Your task to perform on an android device: Is it going to rain tomorrow? Image 0: 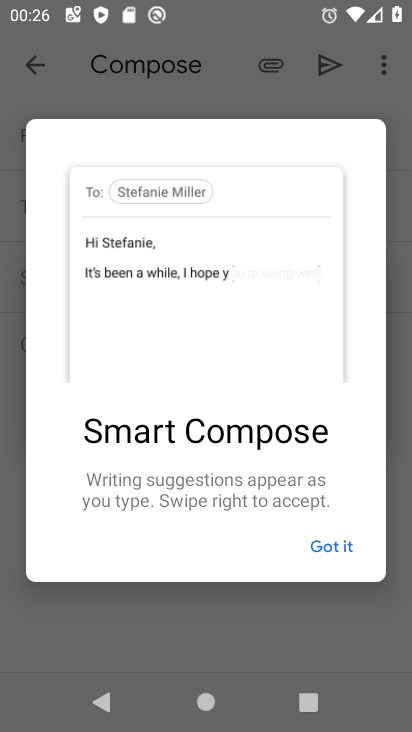
Step 0: press home button
Your task to perform on an android device: Is it going to rain tomorrow? Image 1: 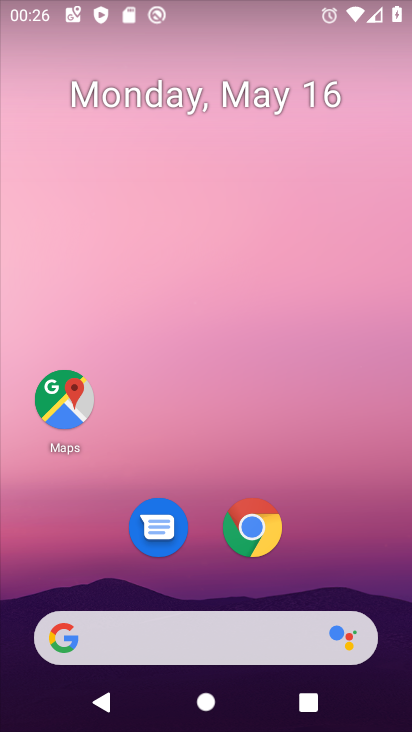
Step 1: drag from (367, 525) to (316, 137)
Your task to perform on an android device: Is it going to rain tomorrow? Image 2: 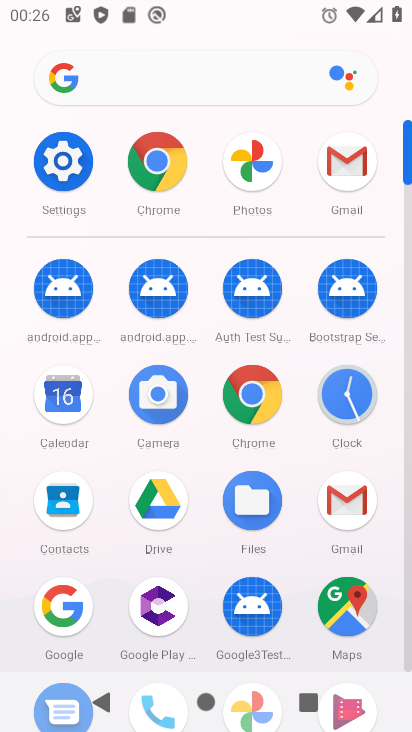
Step 2: click (199, 84)
Your task to perform on an android device: Is it going to rain tomorrow? Image 3: 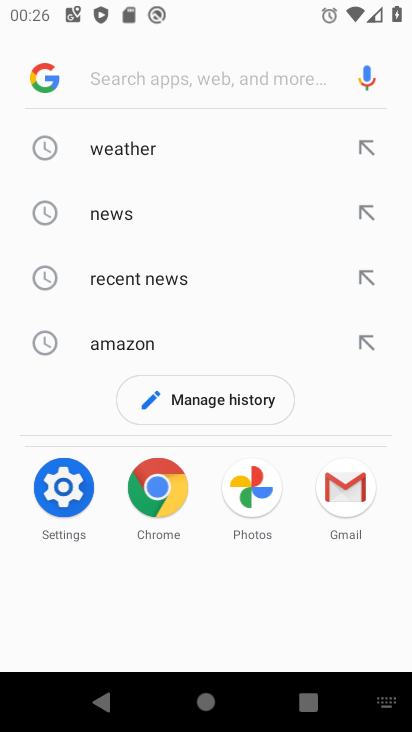
Step 3: click (185, 133)
Your task to perform on an android device: Is it going to rain tomorrow? Image 4: 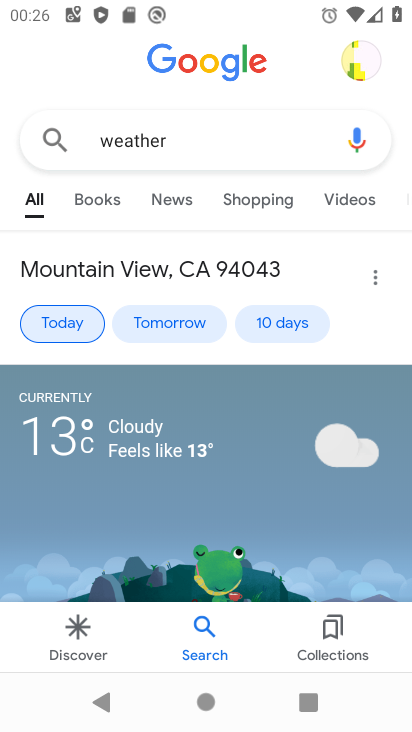
Step 4: press back button
Your task to perform on an android device: Is it going to rain tomorrow? Image 5: 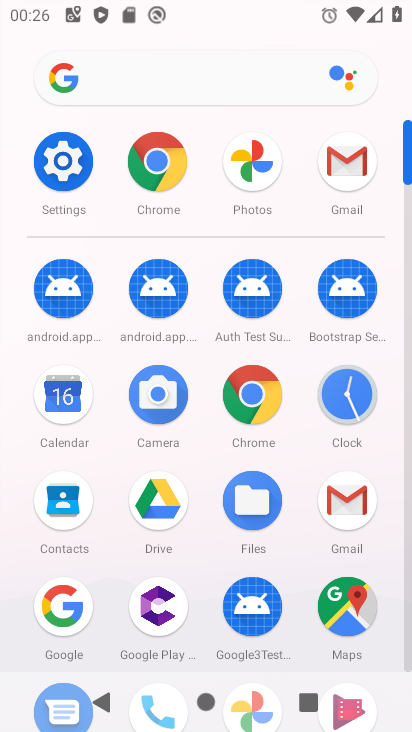
Step 5: click (135, 76)
Your task to perform on an android device: Is it going to rain tomorrow? Image 6: 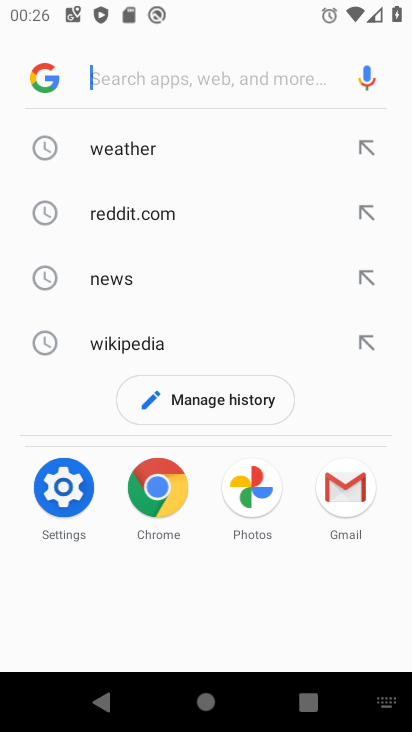
Step 6: click (189, 157)
Your task to perform on an android device: Is it going to rain tomorrow? Image 7: 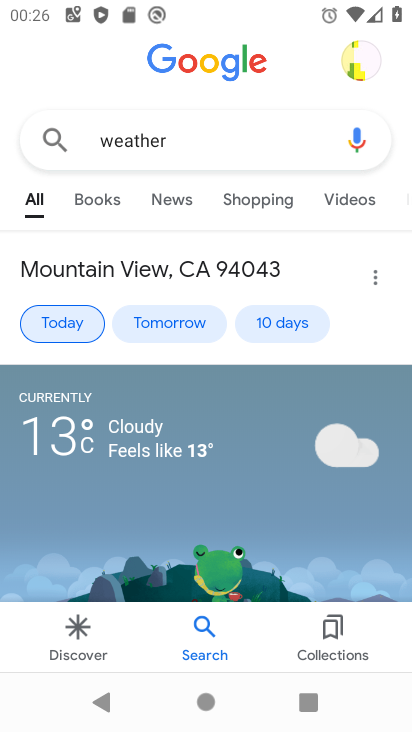
Step 7: click (148, 329)
Your task to perform on an android device: Is it going to rain tomorrow? Image 8: 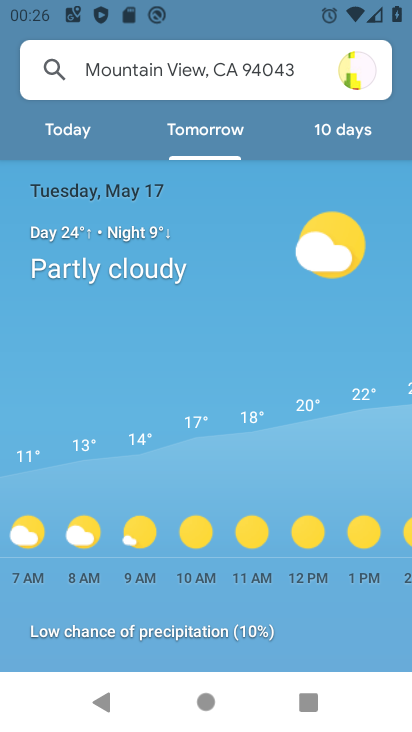
Step 8: task complete